Your task to perform on an android device: toggle airplane mode Image 0: 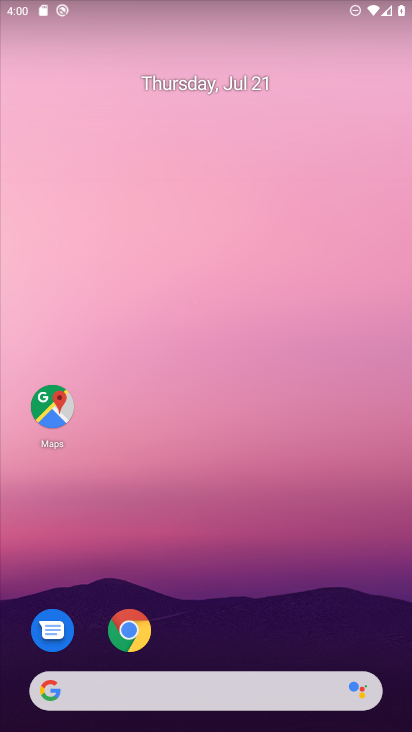
Step 0: drag from (180, 657) to (132, 31)
Your task to perform on an android device: toggle airplane mode Image 1: 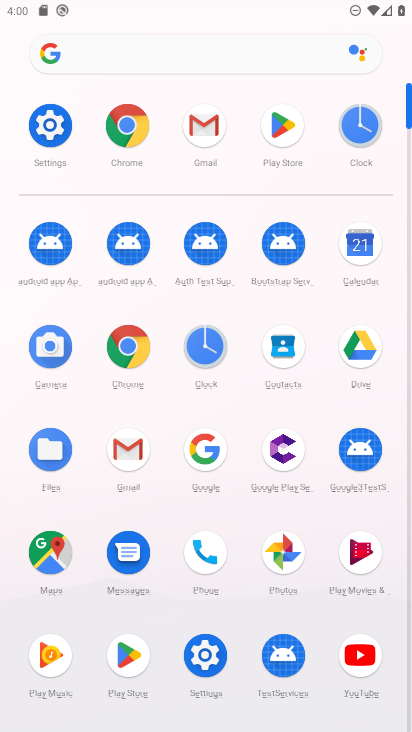
Step 1: click (60, 137)
Your task to perform on an android device: toggle airplane mode Image 2: 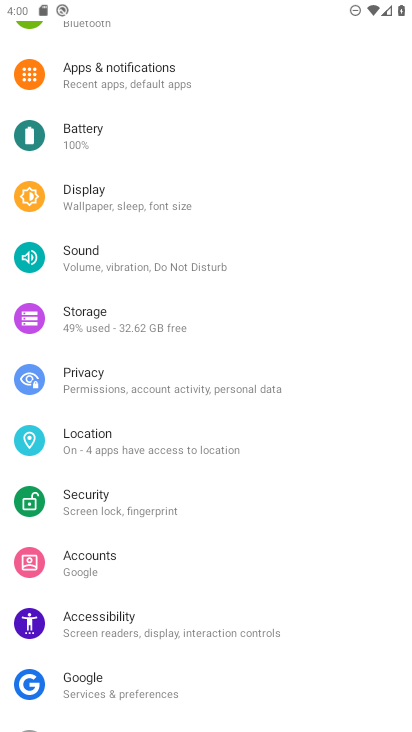
Step 2: drag from (188, 103) to (148, 721)
Your task to perform on an android device: toggle airplane mode Image 3: 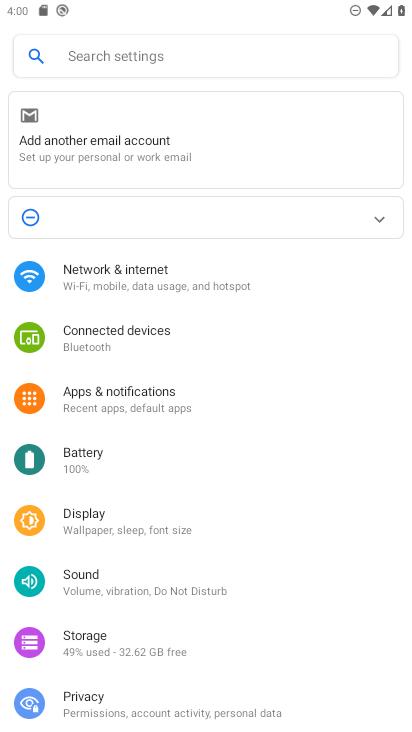
Step 3: click (132, 277)
Your task to perform on an android device: toggle airplane mode Image 4: 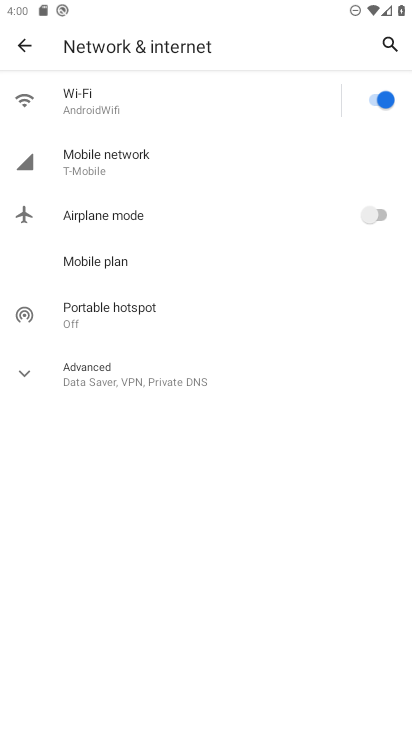
Step 4: click (364, 202)
Your task to perform on an android device: toggle airplane mode Image 5: 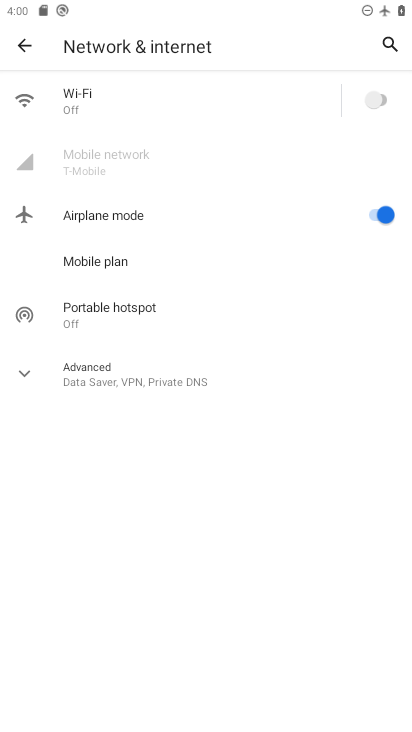
Step 5: task complete